Your task to perform on an android device: turn on notifications settings in the gmail app Image 0: 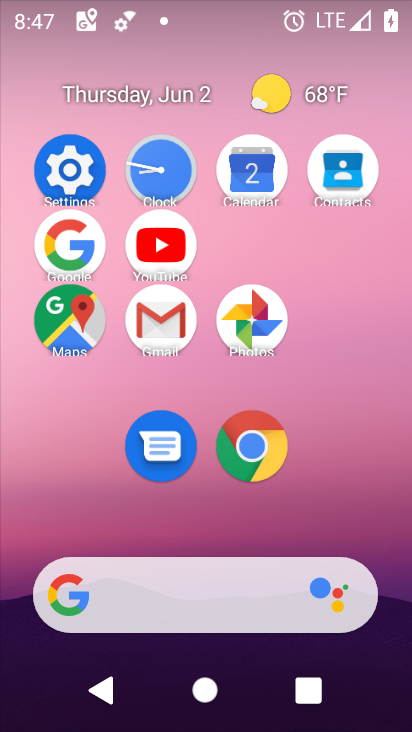
Step 0: click (159, 306)
Your task to perform on an android device: turn on notifications settings in the gmail app Image 1: 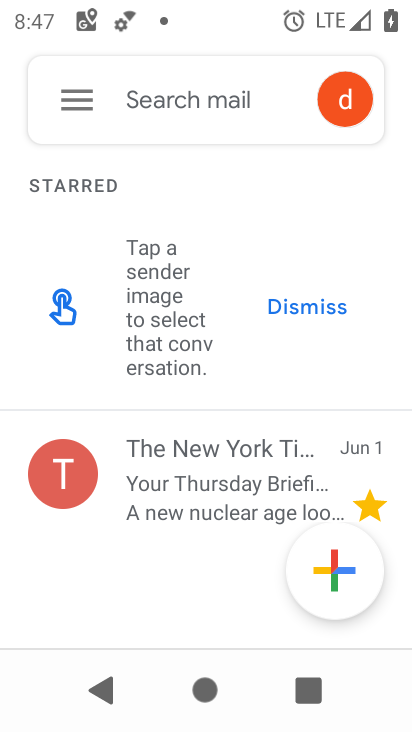
Step 1: click (92, 99)
Your task to perform on an android device: turn on notifications settings in the gmail app Image 2: 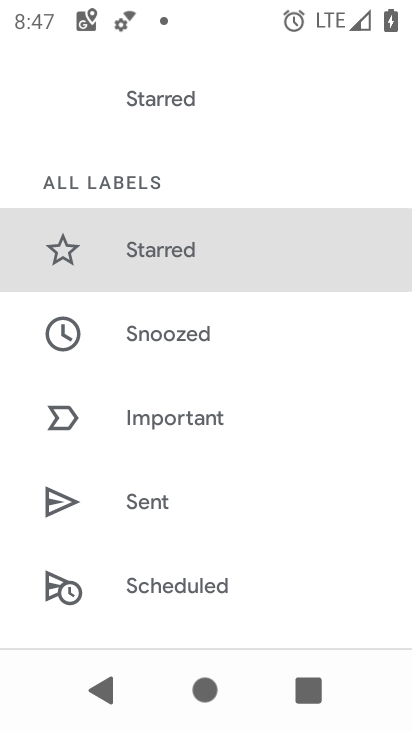
Step 2: drag from (218, 552) to (268, 110)
Your task to perform on an android device: turn on notifications settings in the gmail app Image 3: 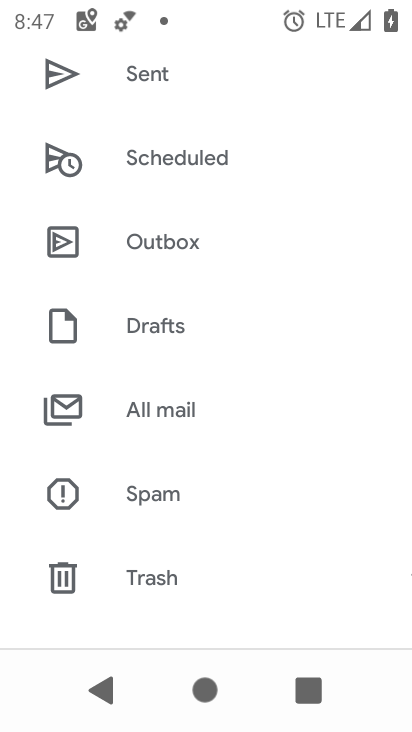
Step 3: drag from (267, 507) to (269, 89)
Your task to perform on an android device: turn on notifications settings in the gmail app Image 4: 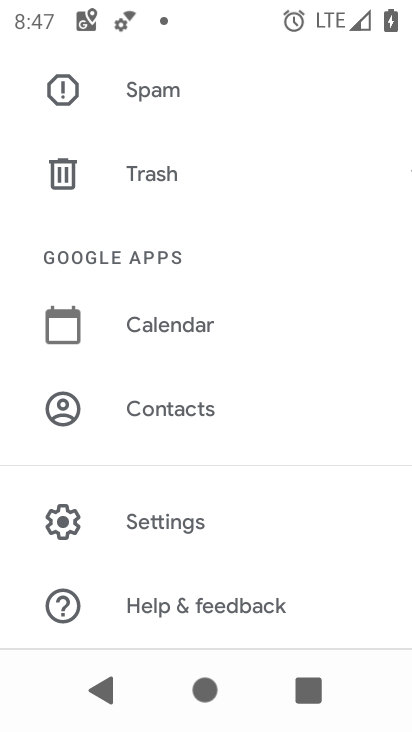
Step 4: click (220, 519)
Your task to perform on an android device: turn on notifications settings in the gmail app Image 5: 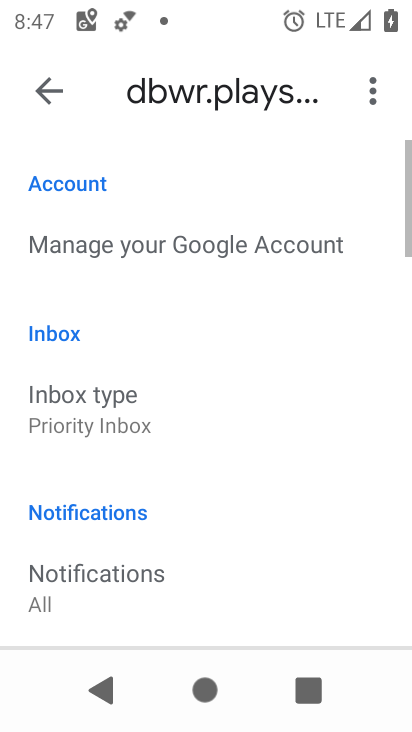
Step 5: drag from (230, 442) to (180, 139)
Your task to perform on an android device: turn on notifications settings in the gmail app Image 6: 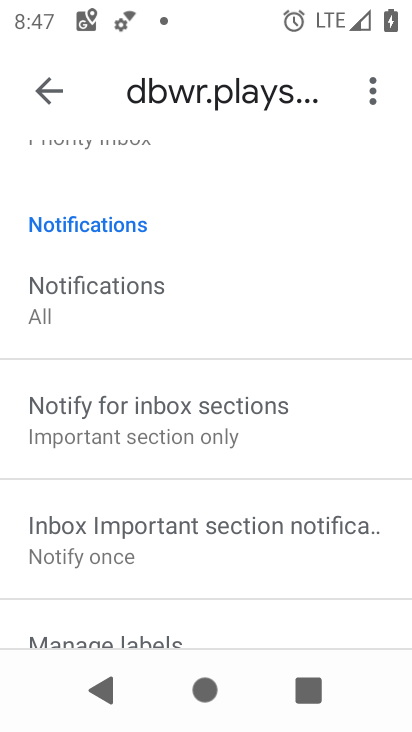
Step 6: click (178, 284)
Your task to perform on an android device: turn on notifications settings in the gmail app Image 7: 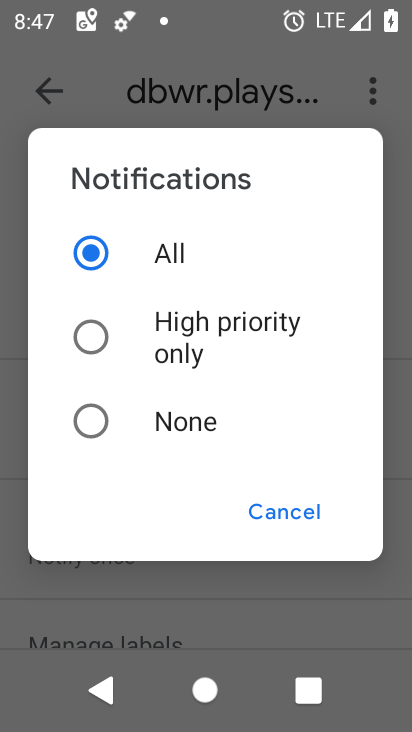
Step 7: task complete